Your task to perform on an android device: toggle priority inbox in the gmail app Image 0: 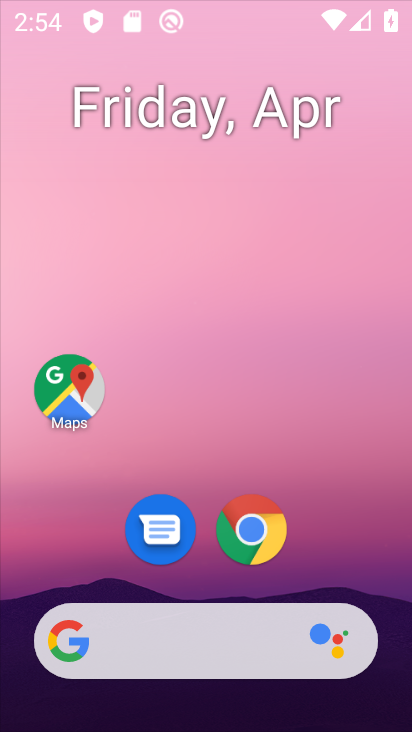
Step 0: drag from (239, 407) to (279, 118)
Your task to perform on an android device: toggle priority inbox in the gmail app Image 1: 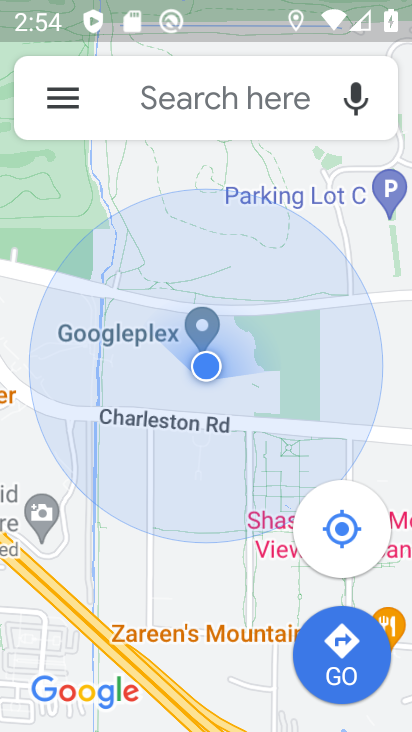
Step 1: press home button
Your task to perform on an android device: toggle priority inbox in the gmail app Image 2: 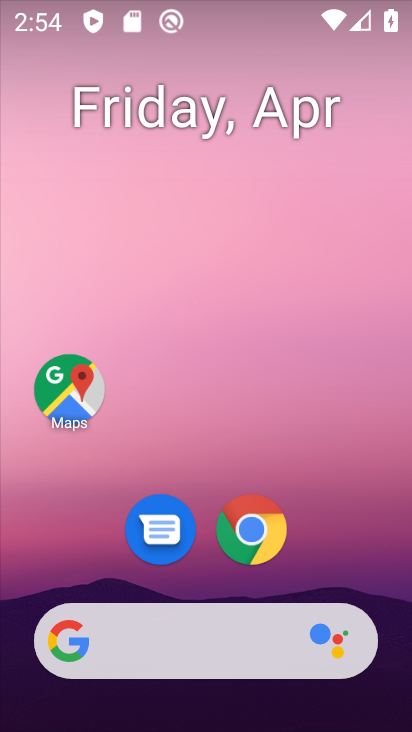
Step 2: drag from (208, 489) to (231, 126)
Your task to perform on an android device: toggle priority inbox in the gmail app Image 3: 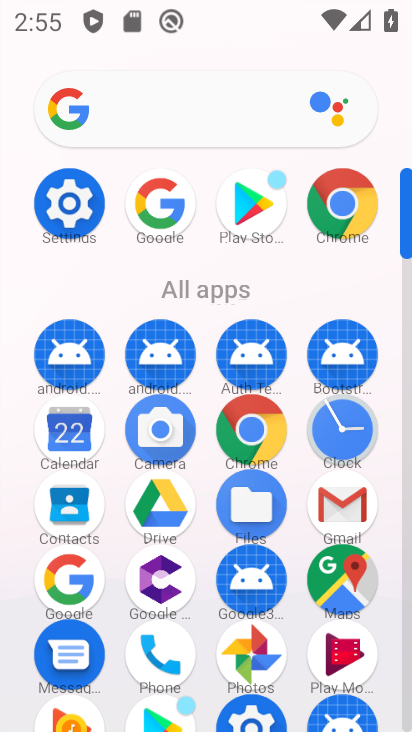
Step 3: click (342, 509)
Your task to perform on an android device: toggle priority inbox in the gmail app Image 4: 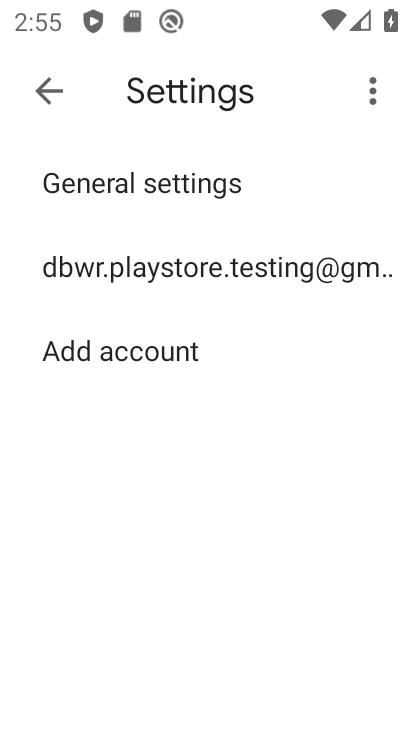
Step 4: click (226, 261)
Your task to perform on an android device: toggle priority inbox in the gmail app Image 5: 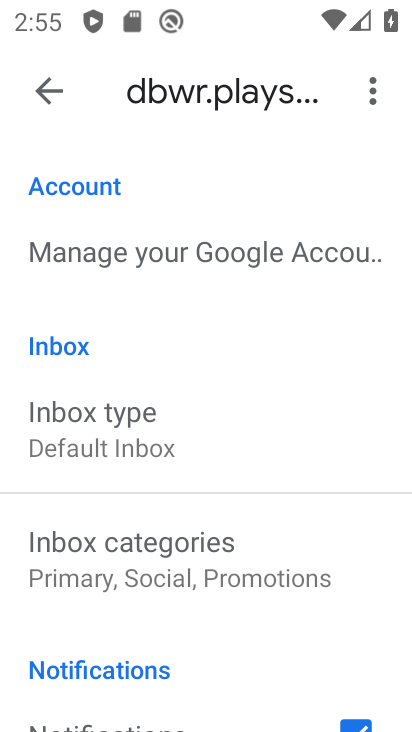
Step 5: click (215, 452)
Your task to perform on an android device: toggle priority inbox in the gmail app Image 6: 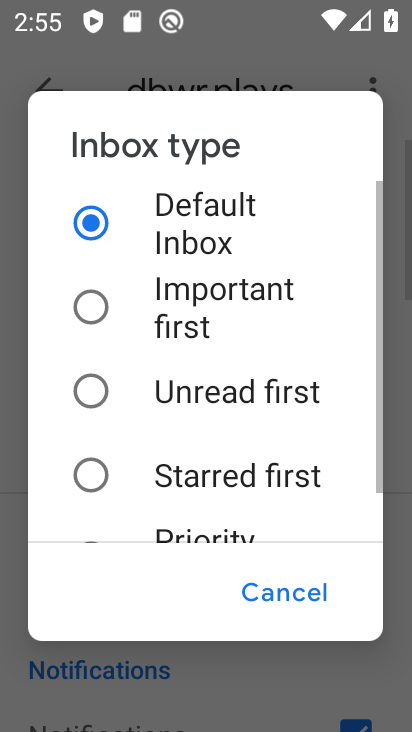
Step 6: drag from (235, 352) to (257, 165)
Your task to perform on an android device: toggle priority inbox in the gmail app Image 7: 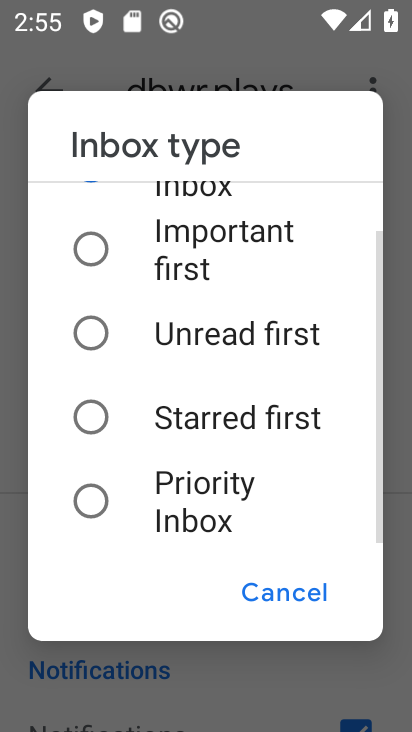
Step 7: click (94, 498)
Your task to perform on an android device: toggle priority inbox in the gmail app Image 8: 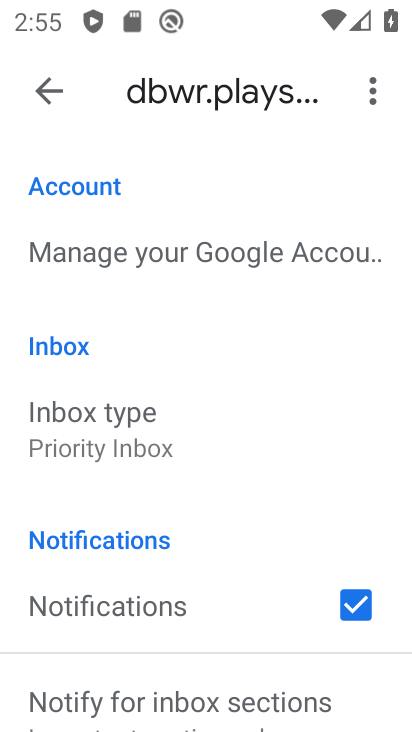
Step 8: task complete